Your task to perform on an android device: Open Chrome and go to settings Image 0: 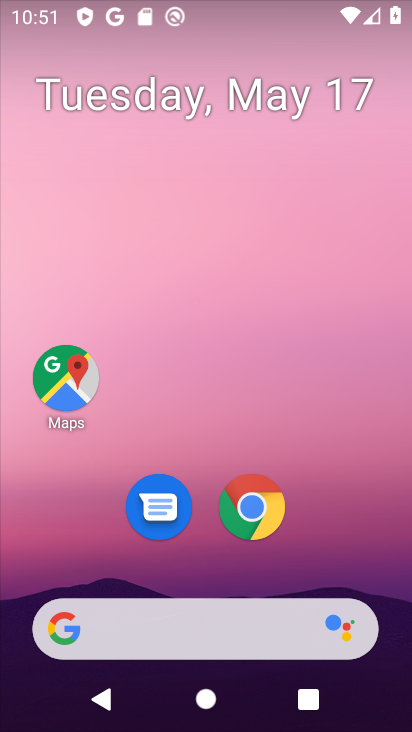
Step 0: click (257, 503)
Your task to perform on an android device: Open Chrome and go to settings Image 1: 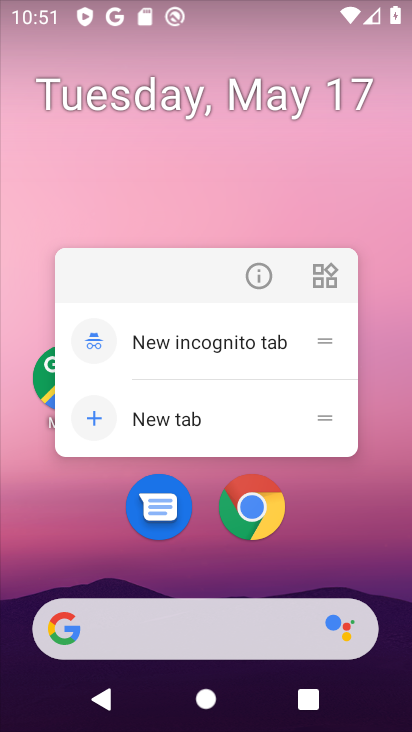
Step 1: click (255, 515)
Your task to perform on an android device: Open Chrome and go to settings Image 2: 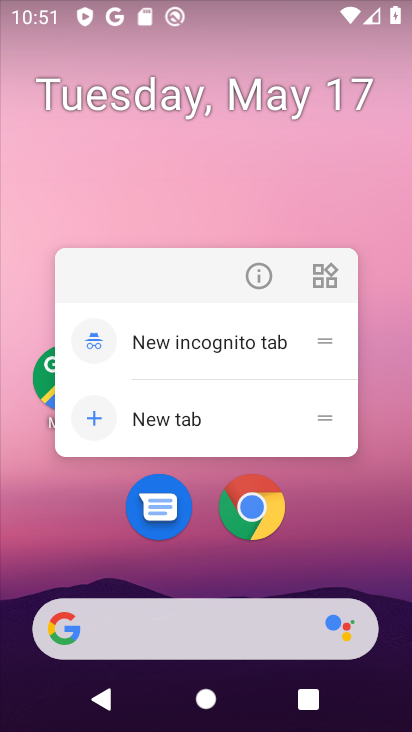
Step 2: click (250, 516)
Your task to perform on an android device: Open Chrome and go to settings Image 3: 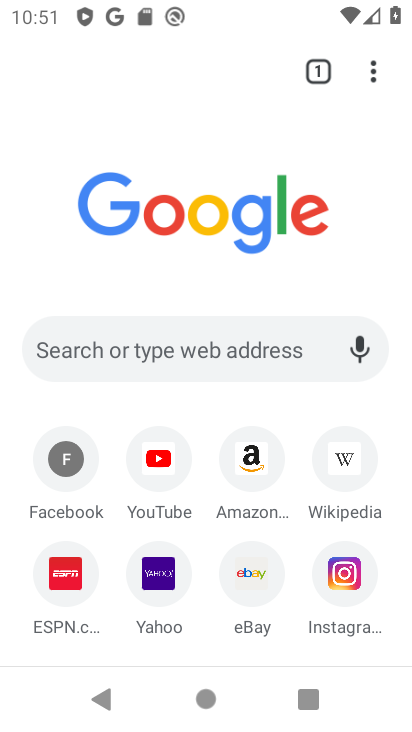
Step 3: task complete